Your task to perform on an android device: change the clock display to show seconds Image 0: 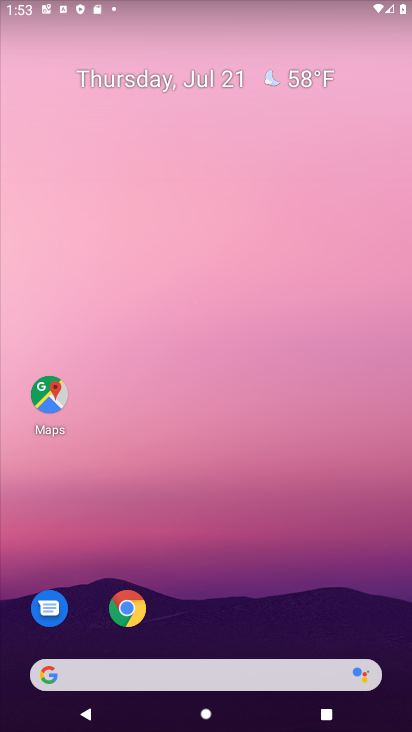
Step 0: drag from (372, 612) to (268, 22)
Your task to perform on an android device: change the clock display to show seconds Image 1: 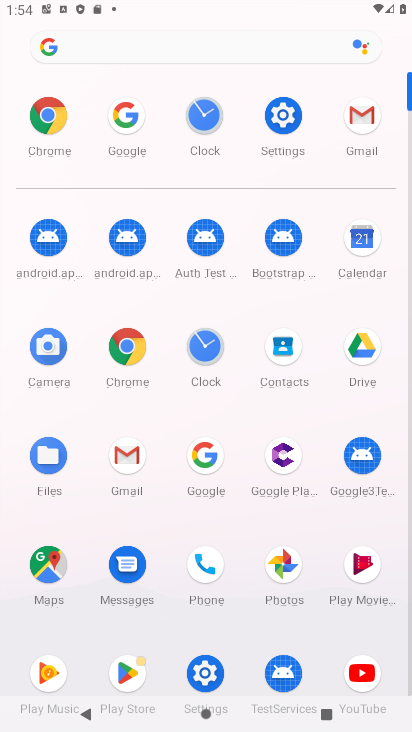
Step 1: click (201, 354)
Your task to perform on an android device: change the clock display to show seconds Image 2: 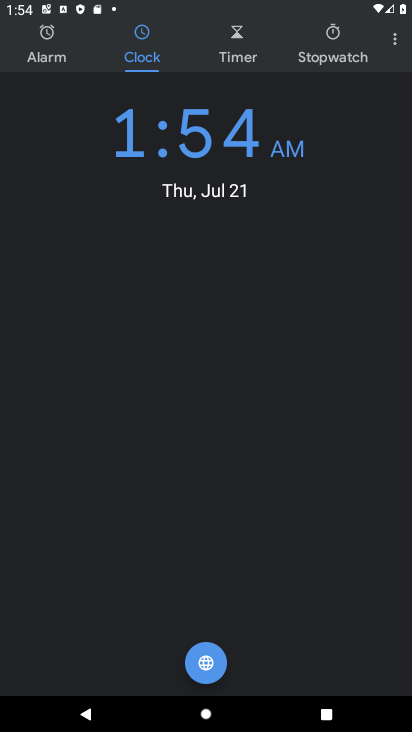
Step 2: click (391, 35)
Your task to perform on an android device: change the clock display to show seconds Image 3: 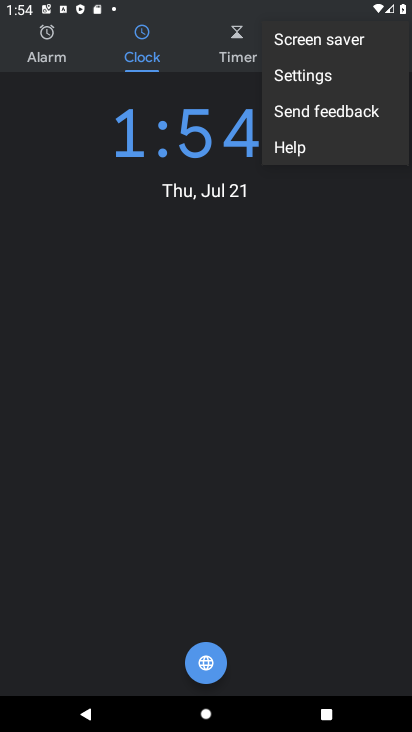
Step 3: click (335, 79)
Your task to perform on an android device: change the clock display to show seconds Image 4: 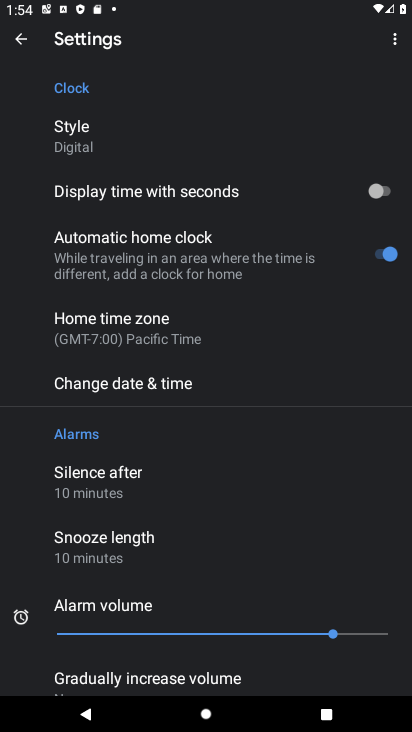
Step 4: click (365, 182)
Your task to perform on an android device: change the clock display to show seconds Image 5: 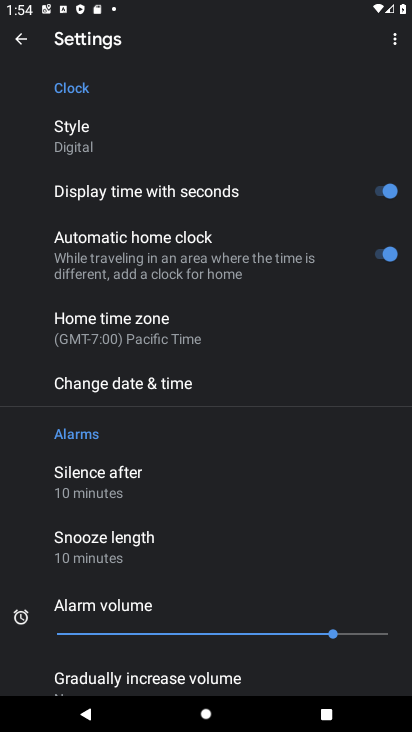
Step 5: task complete